Your task to perform on an android device: Go to Google Image 0: 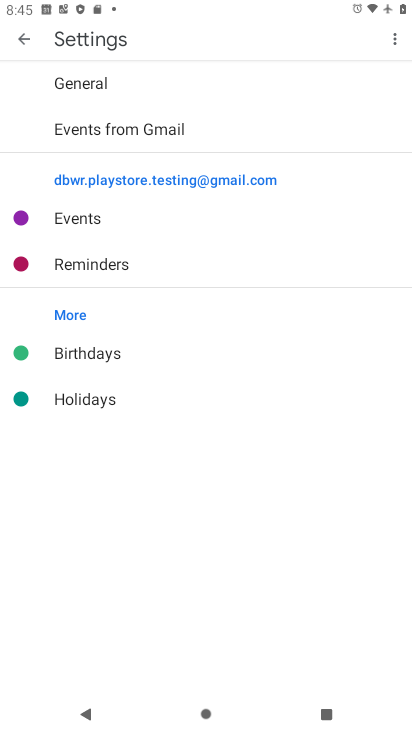
Step 0: press home button
Your task to perform on an android device: Go to Google Image 1: 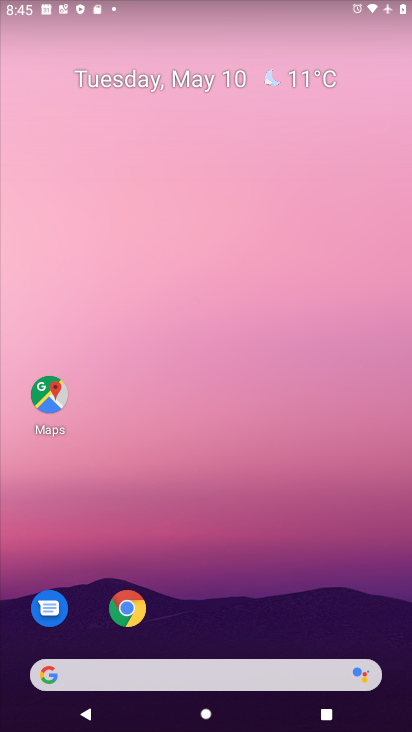
Step 1: drag from (206, 671) to (249, 206)
Your task to perform on an android device: Go to Google Image 2: 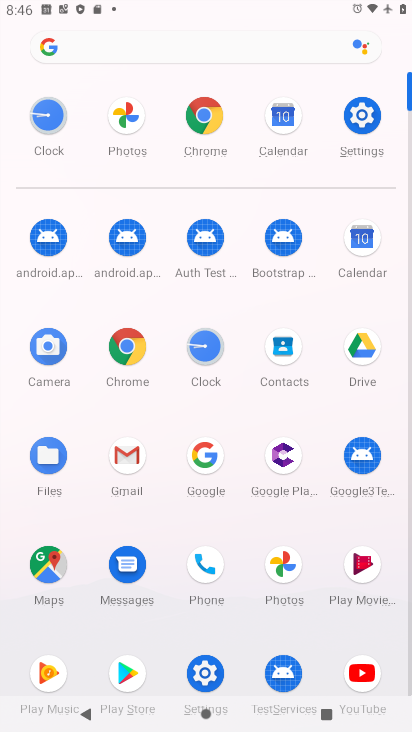
Step 2: click (213, 457)
Your task to perform on an android device: Go to Google Image 3: 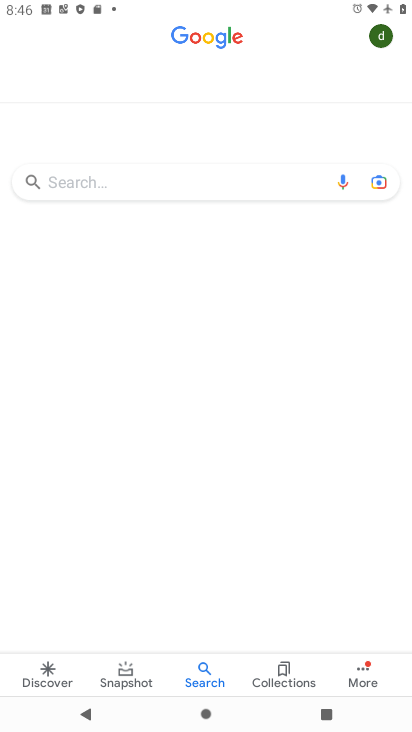
Step 3: task complete